Your task to perform on an android device: Open settings Image 0: 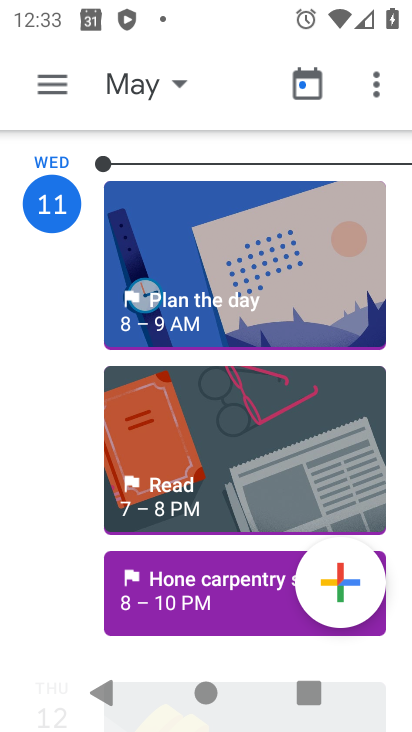
Step 0: press back button
Your task to perform on an android device: Open settings Image 1: 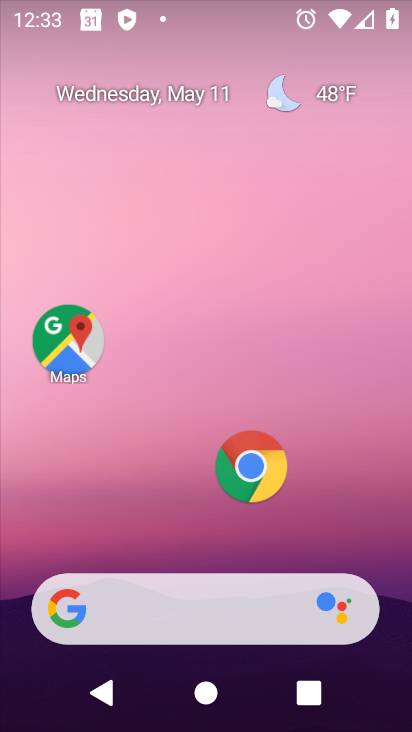
Step 1: drag from (49, 555) to (239, 79)
Your task to perform on an android device: Open settings Image 2: 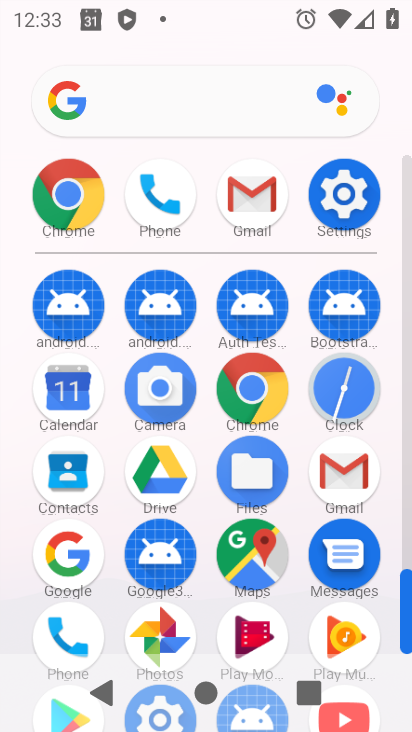
Step 2: click (337, 189)
Your task to perform on an android device: Open settings Image 3: 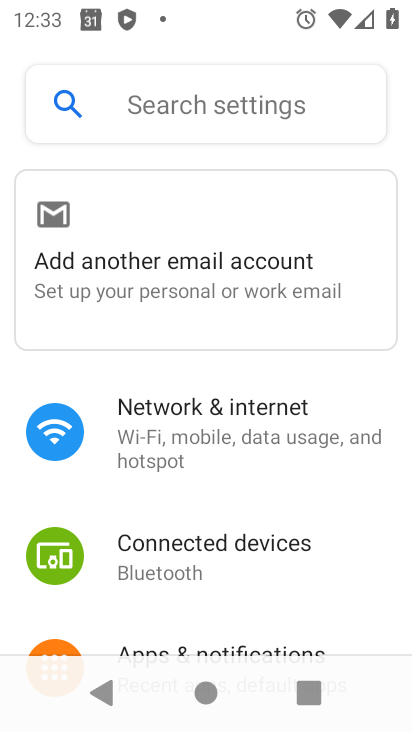
Step 3: task complete